Your task to perform on an android device: Open the web browser Image 0: 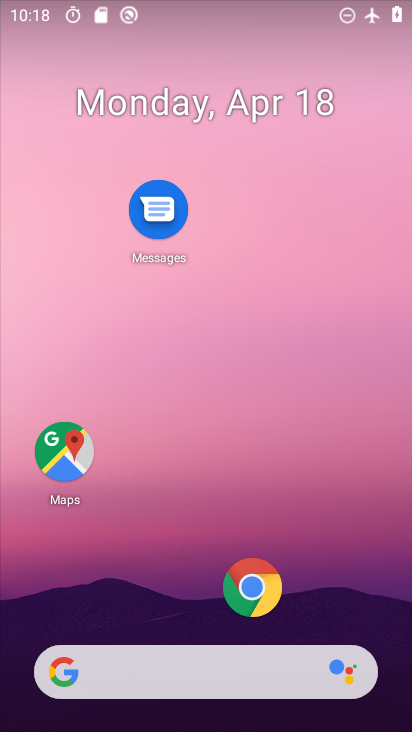
Step 0: click (256, 581)
Your task to perform on an android device: Open the web browser Image 1: 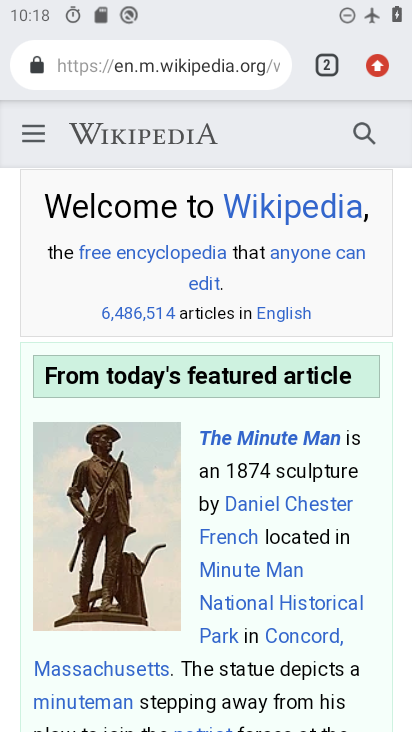
Step 1: click (323, 70)
Your task to perform on an android device: Open the web browser Image 2: 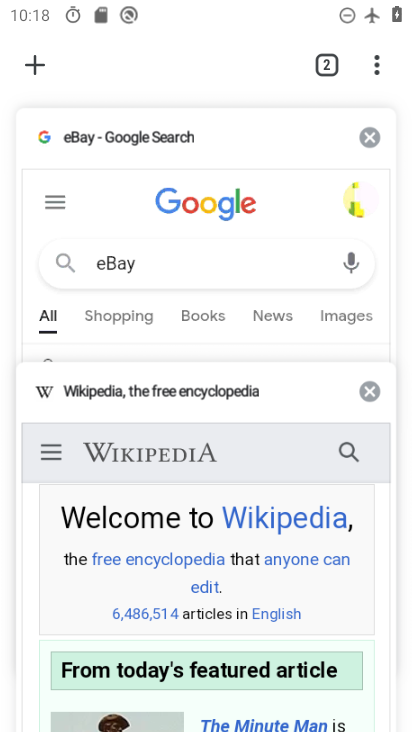
Step 2: click (29, 53)
Your task to perform on an android device: Open the web browser Image 3: 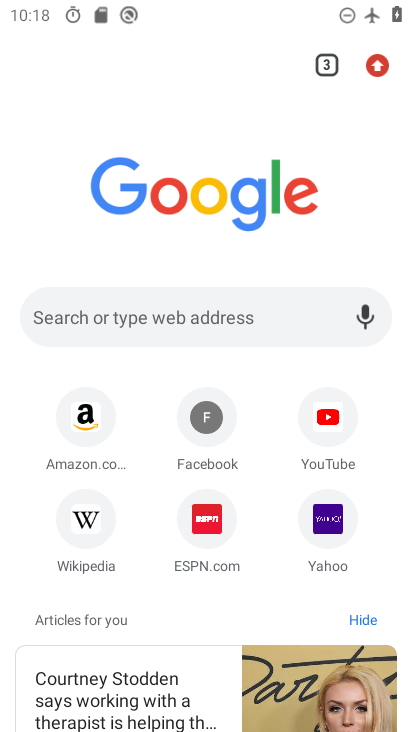
Step 3: task complete